Your task to perform on an android device: Go to settings Image 0: 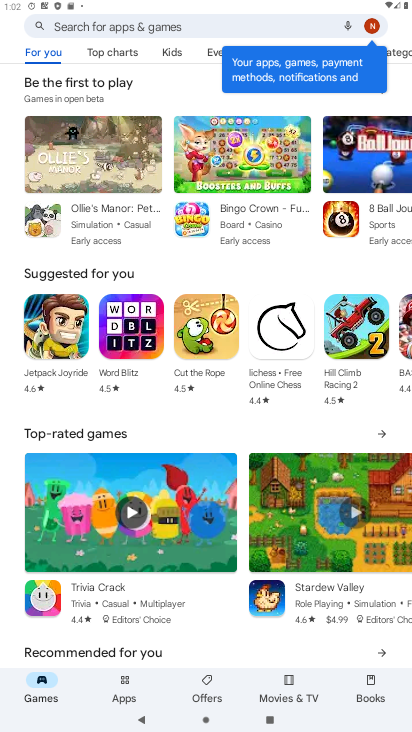
Step 0: press home button
Your task to perform on an android device: Go to settings Image 1: 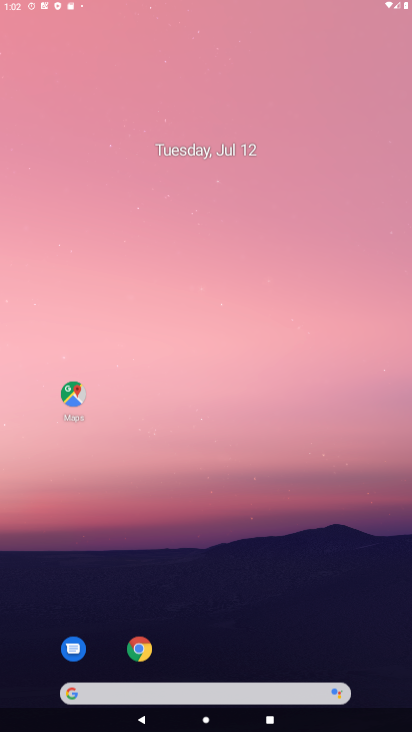
Step 1: drag from (388, 701) to (276, 35)
Your task to perform on an android device: Go to settings Image 2: 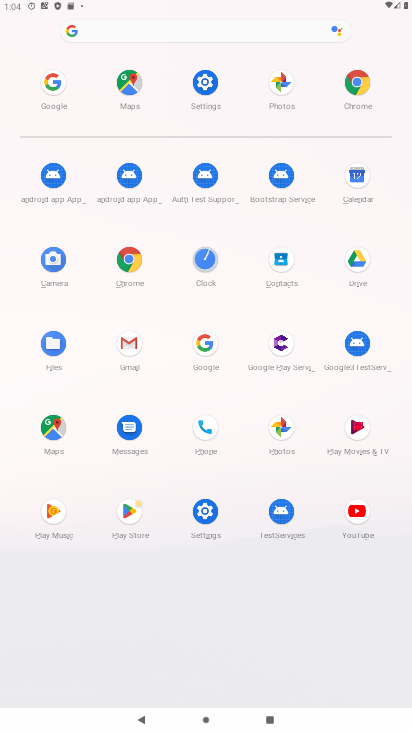
Step 2: click (192, 517)
Your task to perform on an android device: Go to settings Image 3: 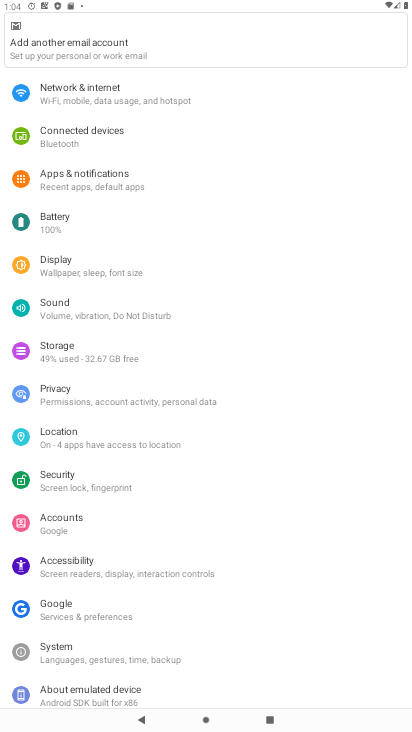
Step 3: task complete